Your task to perform on an android device: turn on data saver in the chrome app Image 0: 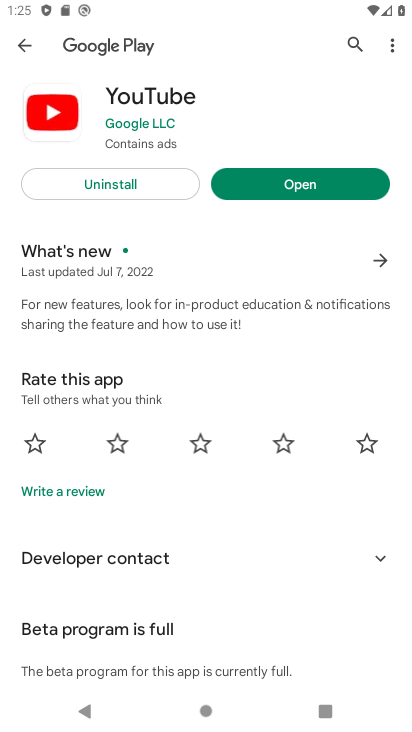
Step 0: press home button
Your task to perform on an android device: turn on data saver in the chrome app Image 1: 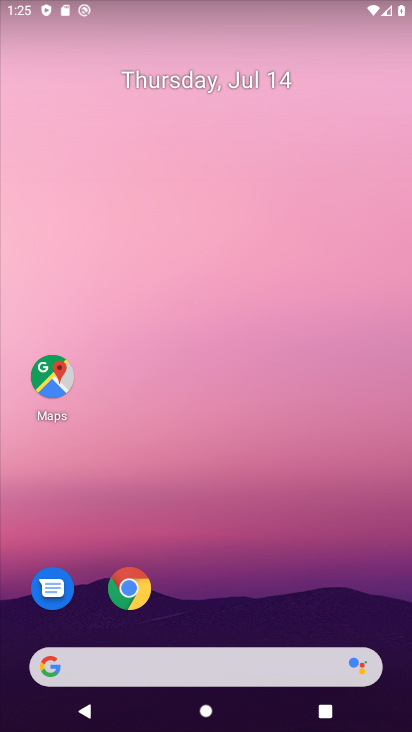
Step 1: click (117, 610)
Your task to perform on an android device: turn on data saver in the chrome app Image 2: 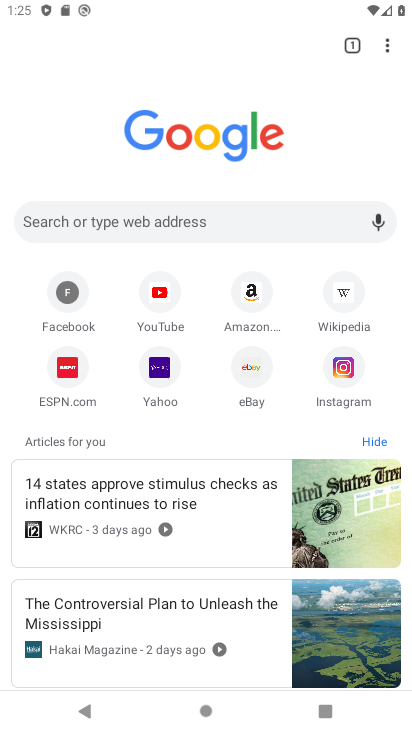
Step 2: click (388, 46)
Your task to perform on an android device: turn on data saver in the chrome app Image 3: 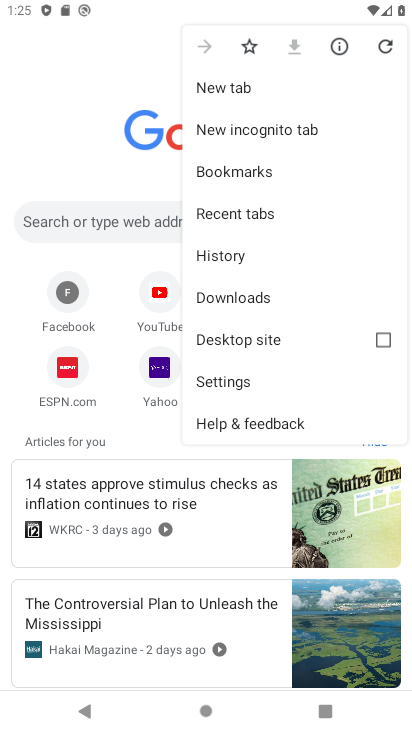
Step 3: click (243, 387)
Your task to perform on an android device: turn on data saver in the chrome app Image 4: 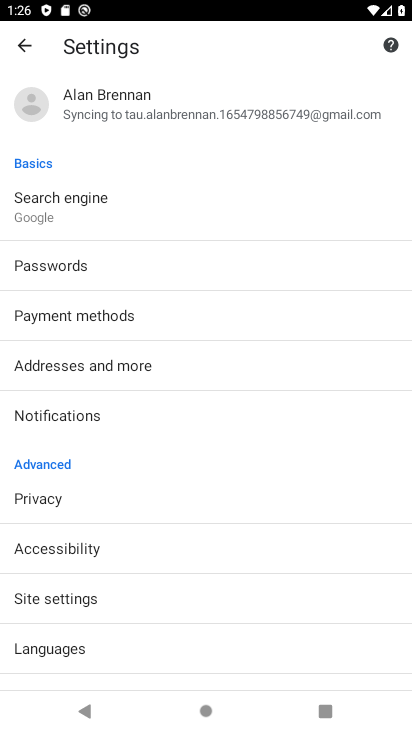
Step 4: drag from (115, 585) to (170, 32)
Your task to perform on an android device: turn on data saver in the chrome app Image 5: 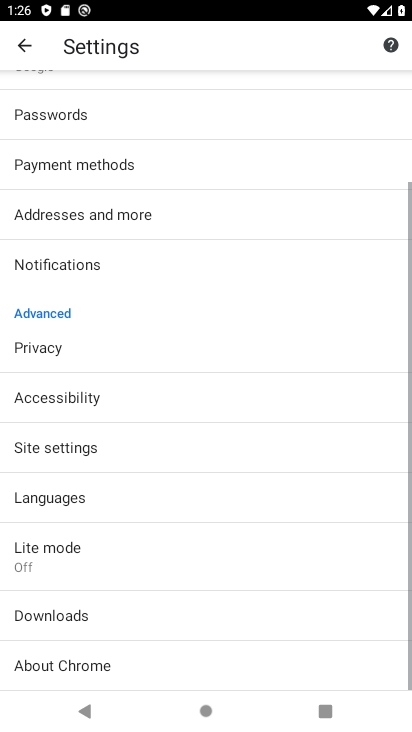
Step 5: click (99, 570)
Your task to perform on an android device: turn on data saver in the chrome app Image 6: 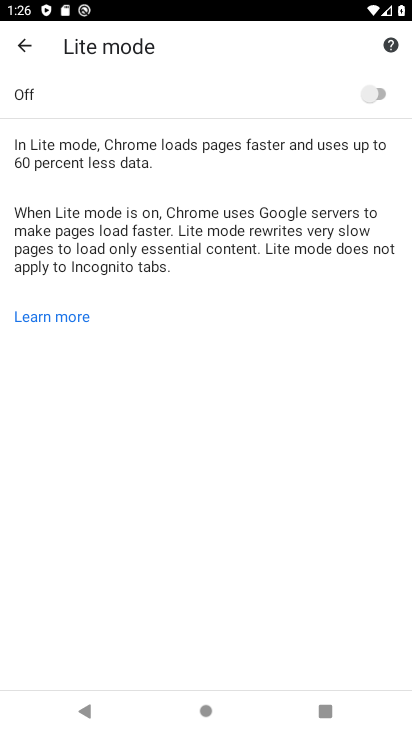
Step 6: click (372, 93)
Your task to perform on an android device: turn on data saver in the chrome app Image 7: 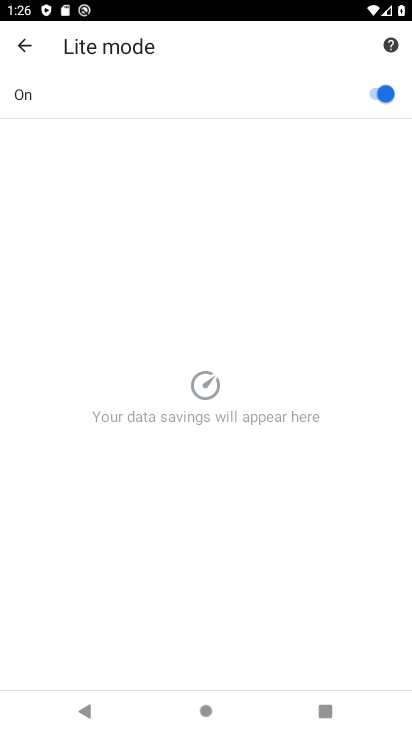
Step 7: task complete